Your task to perform on an android device: turn on showing notifications on the lock screen Image 0: 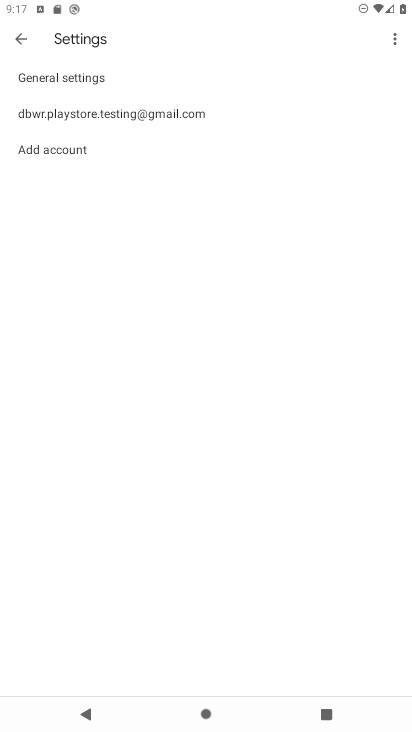
Step 0: press home button
Your task to perform on an android device: turn on showing notifications on the lock screen Image 1: 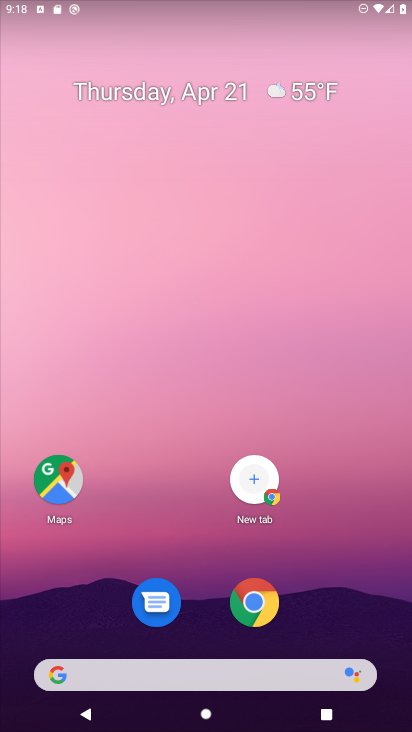
Step 1: drag from (146, 428) to (147, 45)
Your task to perform on an android device: turn on showing notifications on the lock screen Image 2: 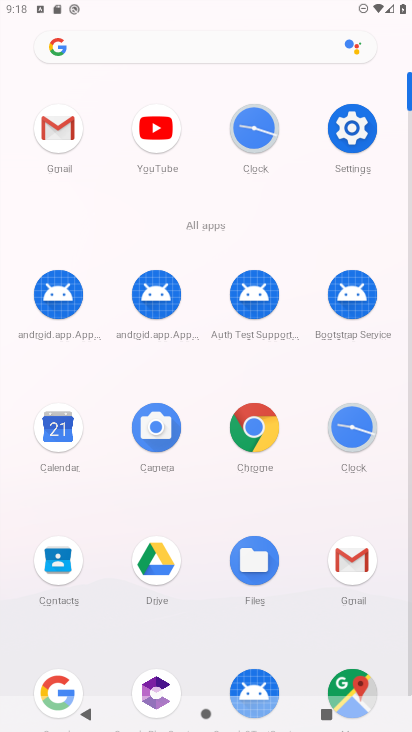
Step 2: click (345, 121)
Your task to perform on an android device: turn on showing notifications on the lock screen Image 3: 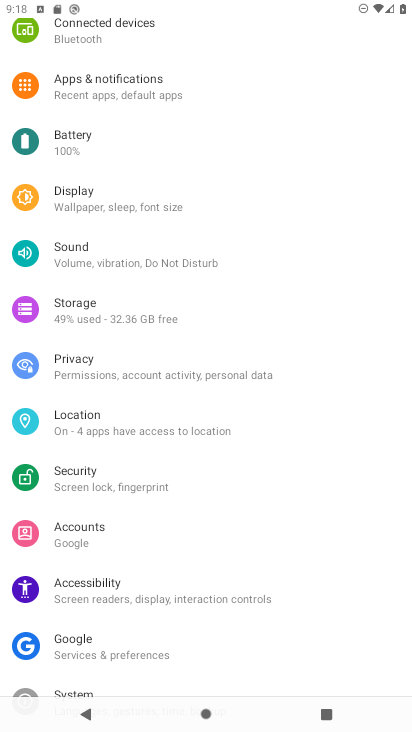
Step 3: click (181, 98)
Your task to perform on an android device: turn on showing notifications on the lock screen Image 4: 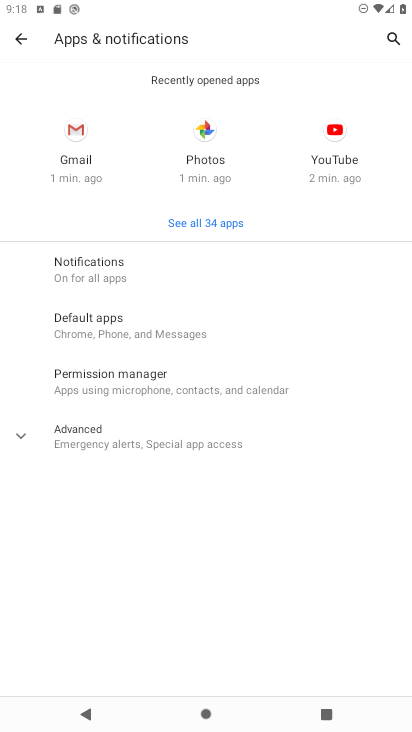
Step 4: click (82, 270)
Your task to perform on an android device: turn on showing notifications on the lock screen Image 5: 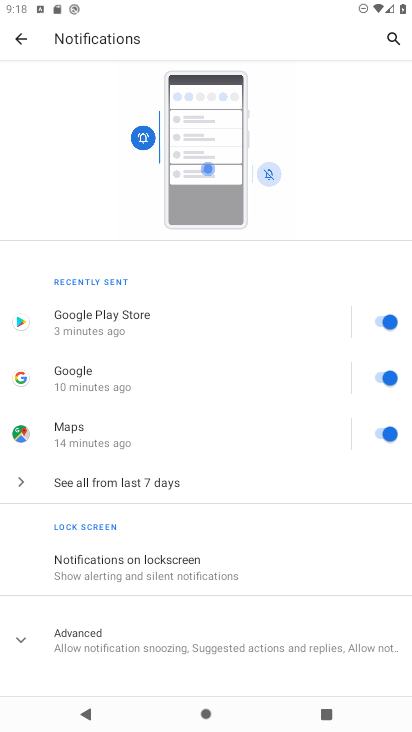
Step 5: click (125, 556)
Your task to perform on an android device: turn on showing notifications on the lock screen Image 6: 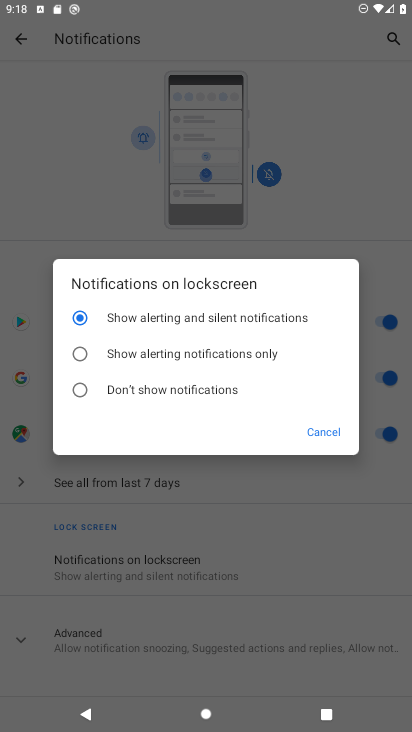
Step 6: task complete